Your task to perform on an android device: Go to internet settings Image 0: 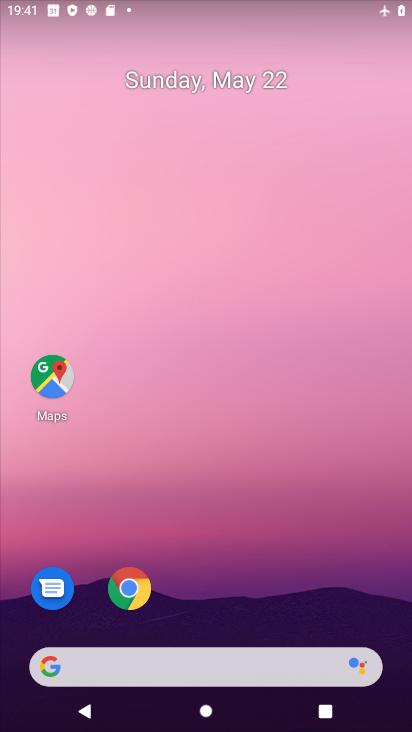
Step 0: click (49, 668)
Your task to perform on an android device: Go to internet settings Image 1: 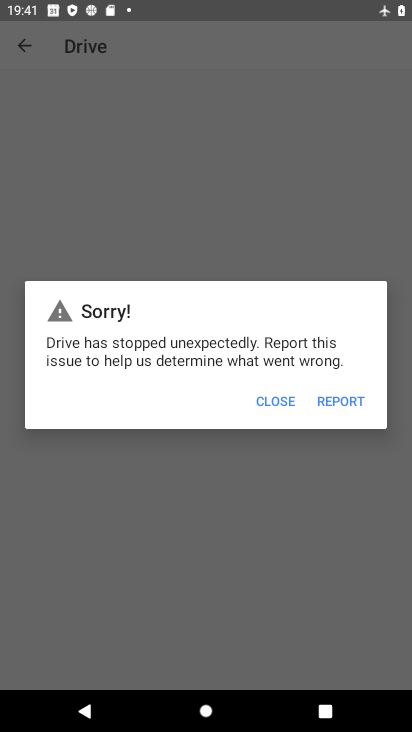
Step 1: press home button
Your task to perform on an android device: Go to internet settings Image 2: 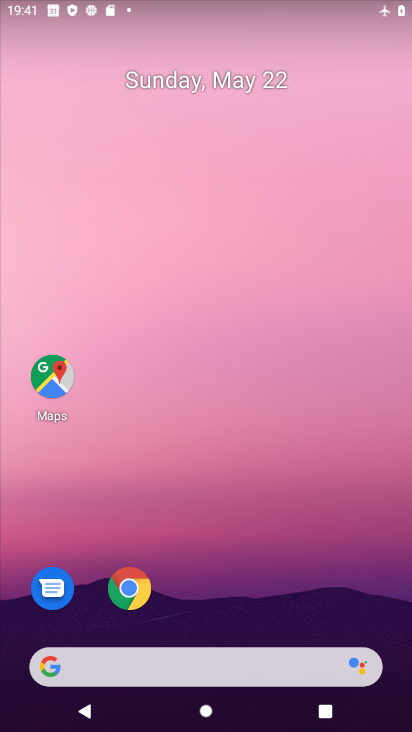
Step 2: drag from (273, 595) to (226, 95)
Your task to perform on an android device: Go to internet settings Image 3: 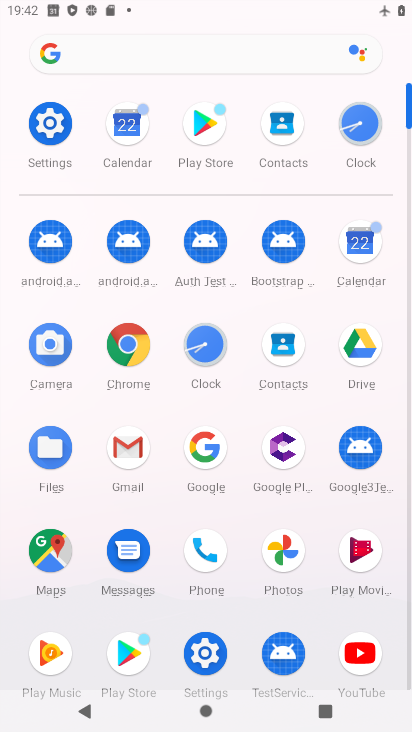
Step 3: click (49, 121)
Your task to perform on an android device: Go to internet settings Image 4: 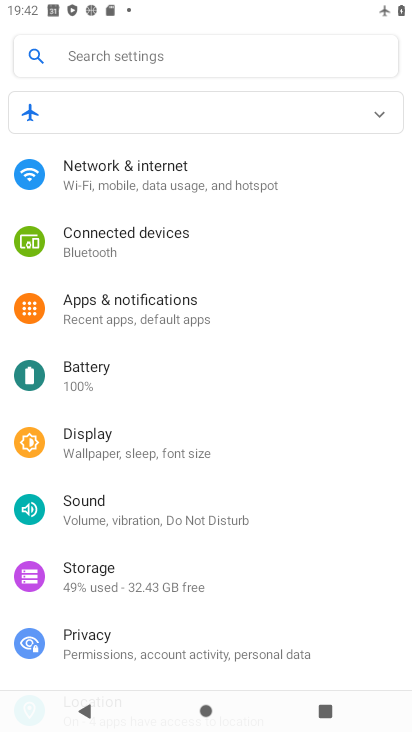
Step 4: click (117, 162)
Your task to perform on an android device: Go to internet settings Image 5: 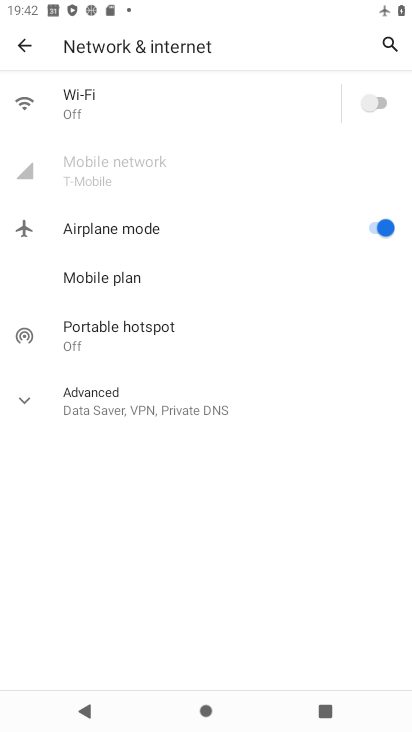
Step 5: task complete